Your task to perform on an android device: find which apps use the phone's location Image 0: 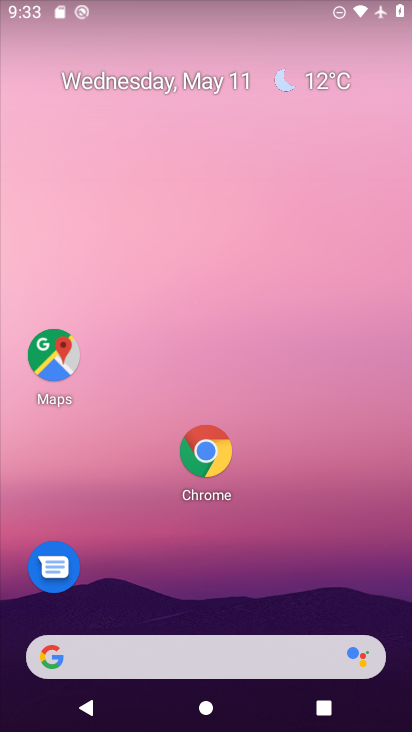
Step 0: drag from (151, 609) to (264, 156)
Your task to perform on an android device: find which apps use the phone's location Image 1: 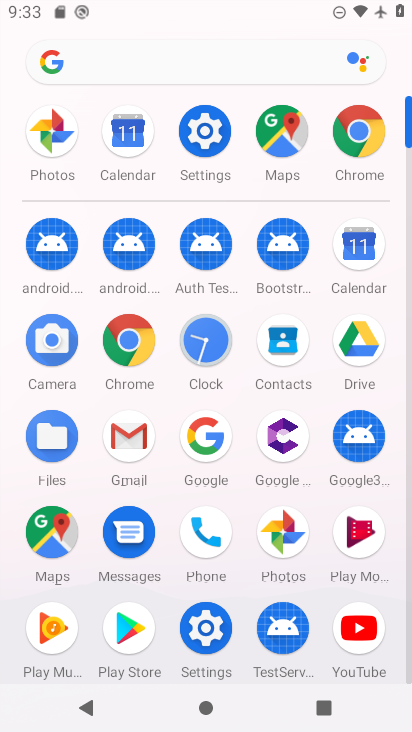
Step 1: click (202, 140)
Your task to perform on an android device: find which apps use the phone's location Image 2: 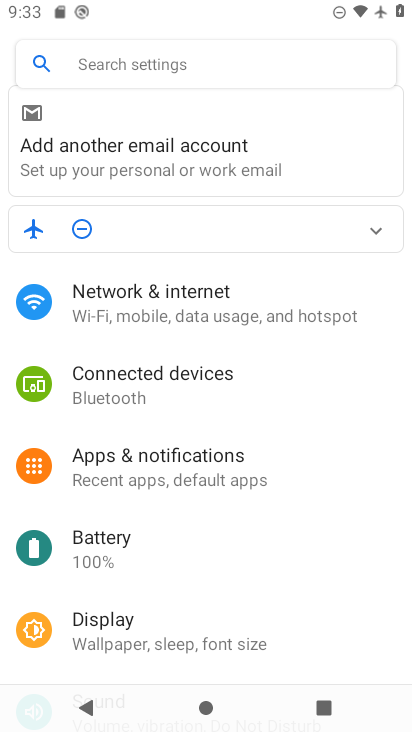
Step 2: drag from (156, 622) to (261, 259)
Your task to perform on an android device: find which apps use the phone's location Image 3: 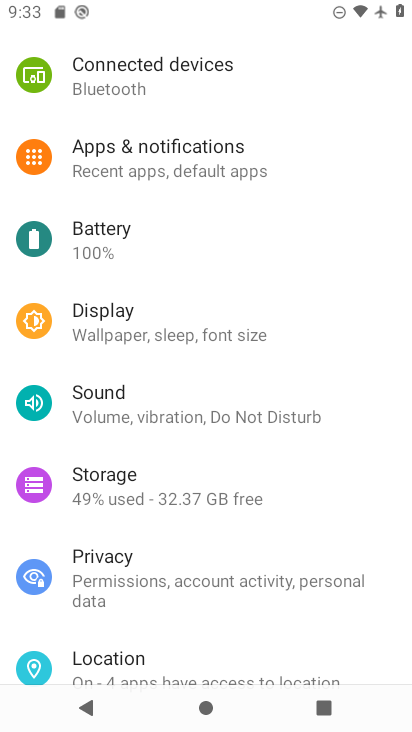
Step 3: click (124, 661)
Your task to perform on an android device: find which apps use the phone's location Image 4: 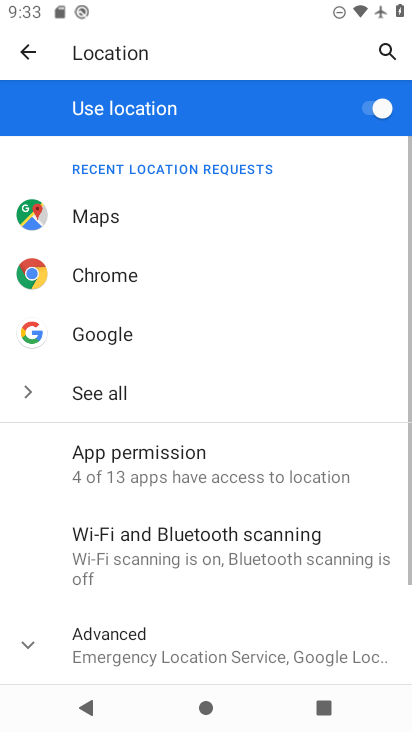
Step 4: click (123, 466)
Your task to perform on an android device: find which apps use the phone's location Image 5: 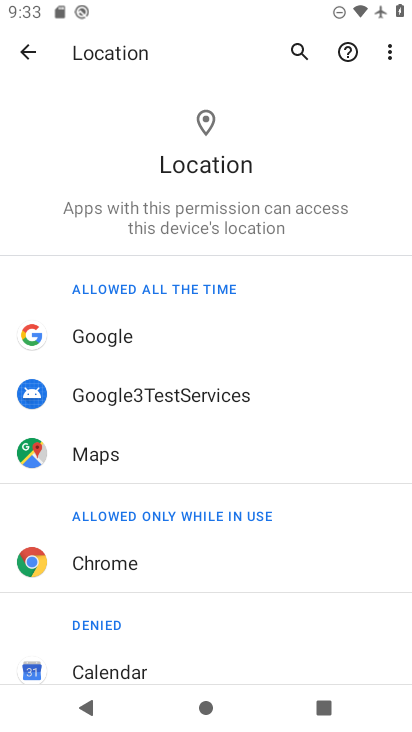
Step 5: drag from (172, 604) to (295, 36)
Your task to perform on an android device: find which apps use the phone's location Image 6: 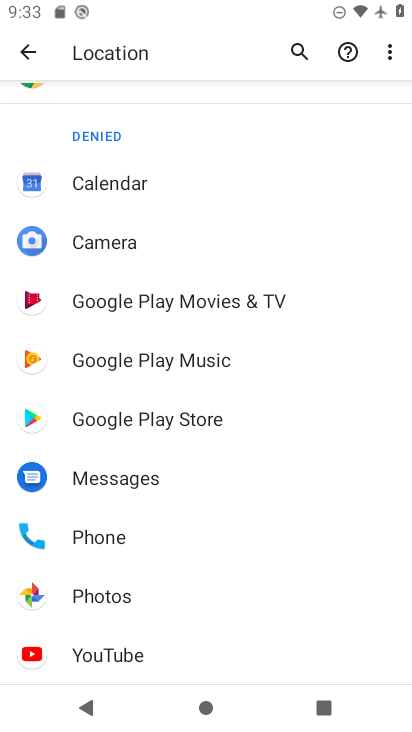
Step 6: click (116, 537)
Your task to perform on an android device: find which apps use the phone's location Image 7: 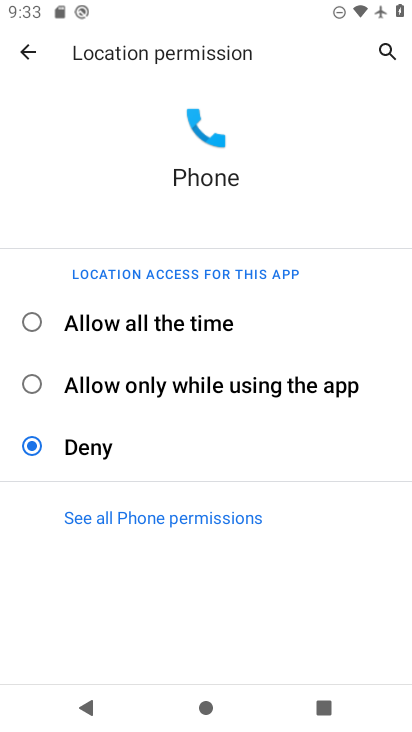
Step 7: task complete